Your task to perform on an android device: Search for Mexican restaurants on Maps Image 0: 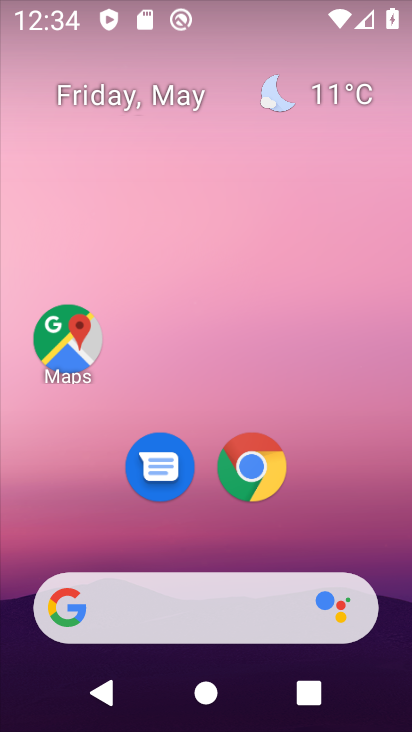
Step 0: drag from (358, 506) to (360, 156)
Your task to perform on an android device: Search for Mexican restaurants on Maps Image 1: 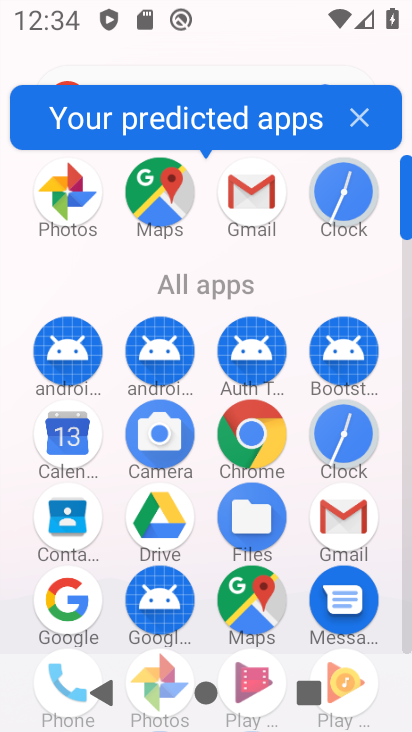
Step 1: click (263, 602)
Your task to perform on an android device: Search for Mexican restaurants on Maps Image 2: 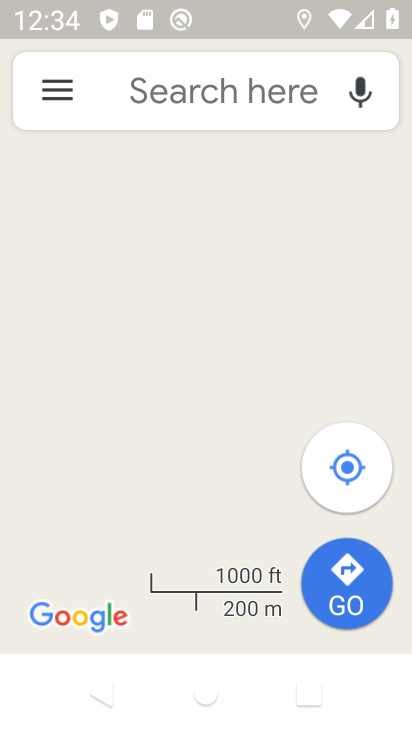
Step 2: click (178, 84)
Your task to perform on an android device: Search for Mexican restaurants on Maps Image 3: 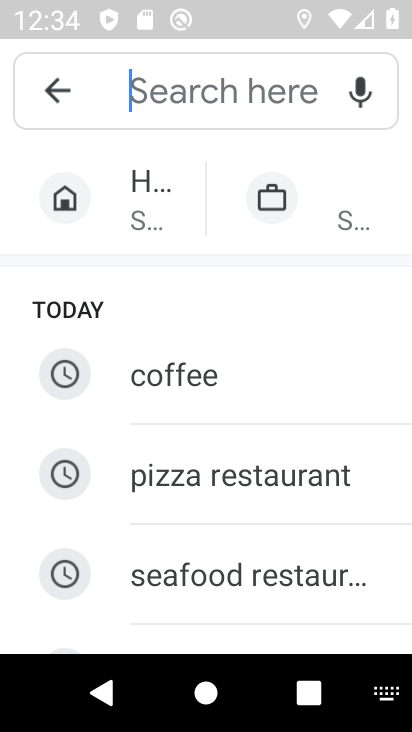
Step 3: type "mexican restaurants "
Your task to perform on an android device: Search for Mexican restaurants on Maps Image 4: 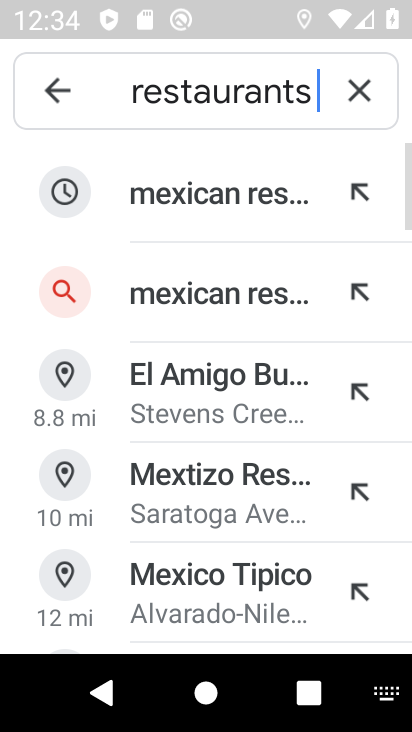
Step 4: click (224, 205)
Your task to perform on an android device: Search for Mexican restaurants on Maps Image 5: 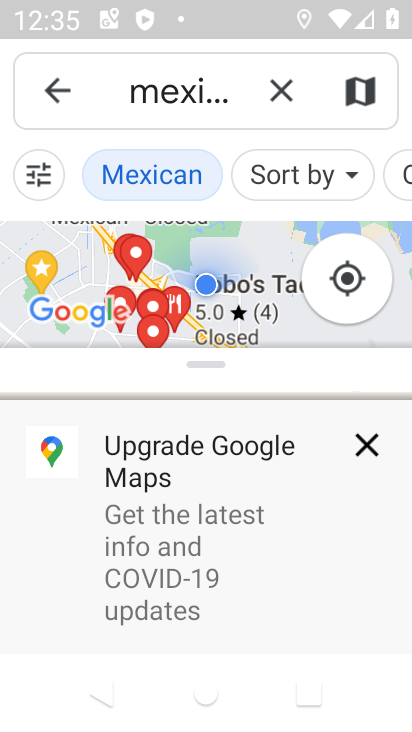
Step 5: task complete